Your task to perform on an android device: Play the latest video from the Washington Post Image 0: 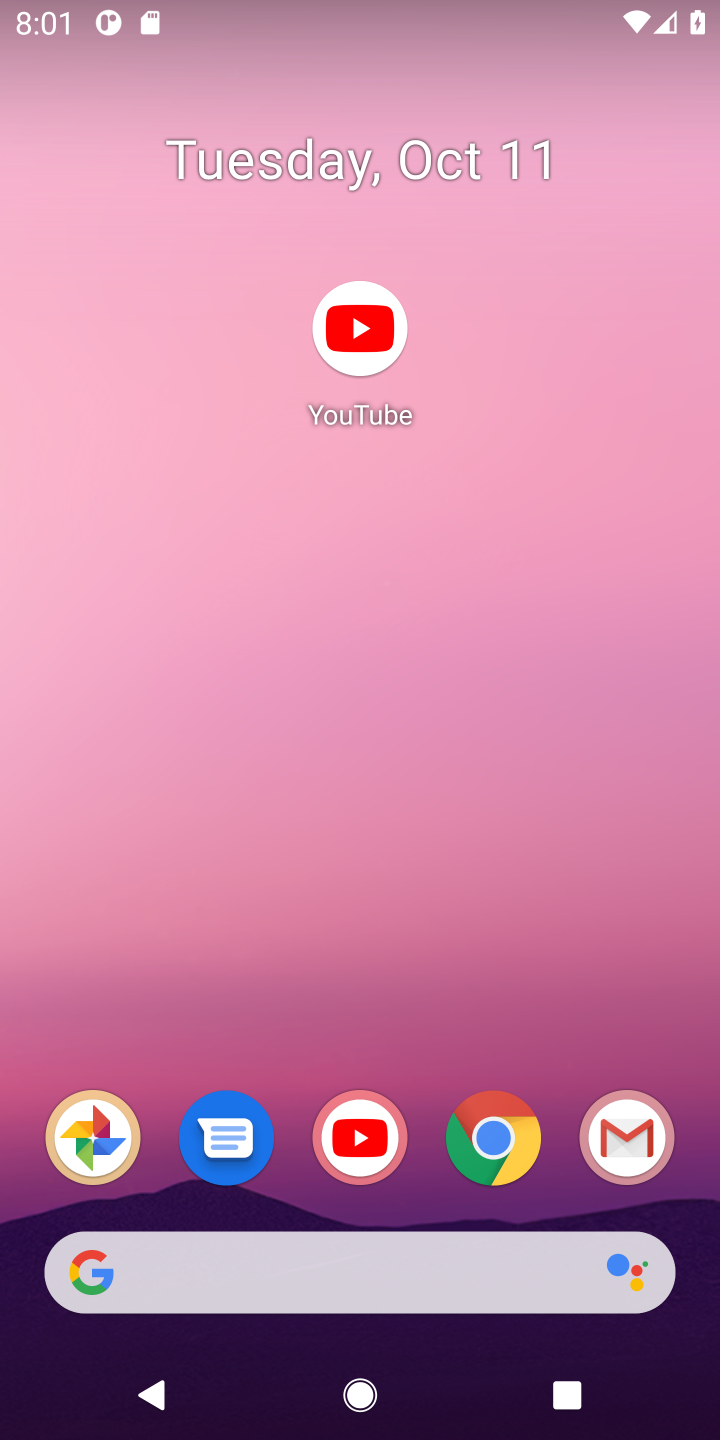
Step 0: click (347, 1137)
Your task to perform on an android device: Play the latest video from the Washington Post Image 1: 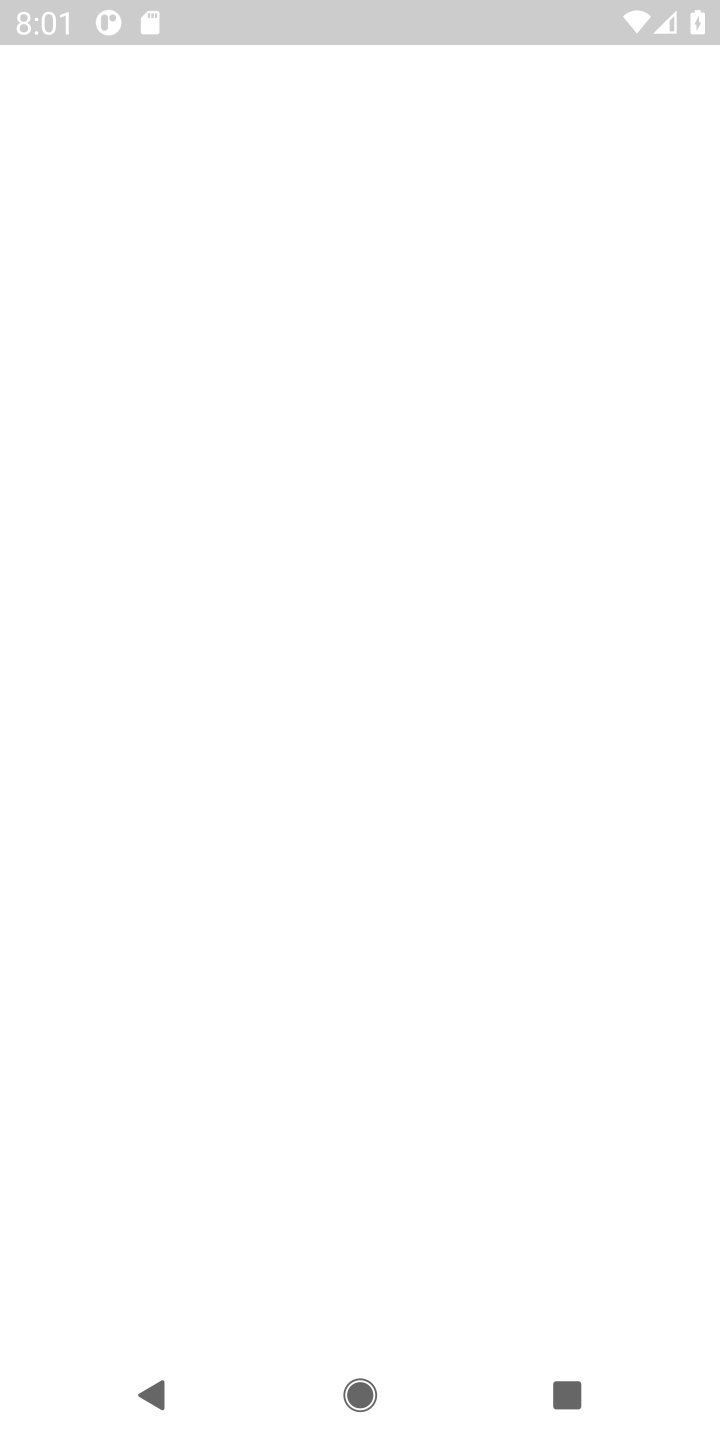
Step 1: task complete